Your task to perform on an android device: open chrome and create a bookmark for the current page Image 0: 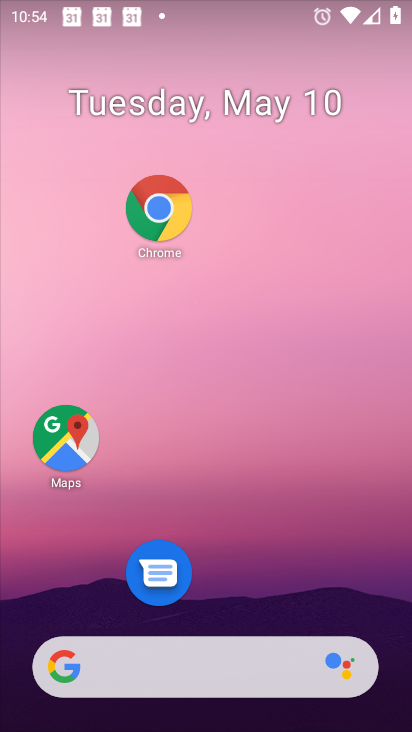
Step 0: drag from (290, 693) to (329, 155)
Your task to perform on an android device: open chrome and create a bookmark for the current page Image 1: 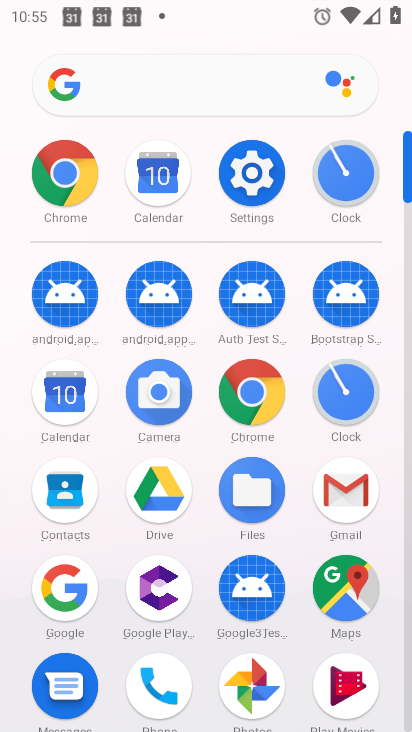
Step 1: click (75, 161)
Your task to perform on an android device: open chrome and create a bookmark for the current page Image 2: 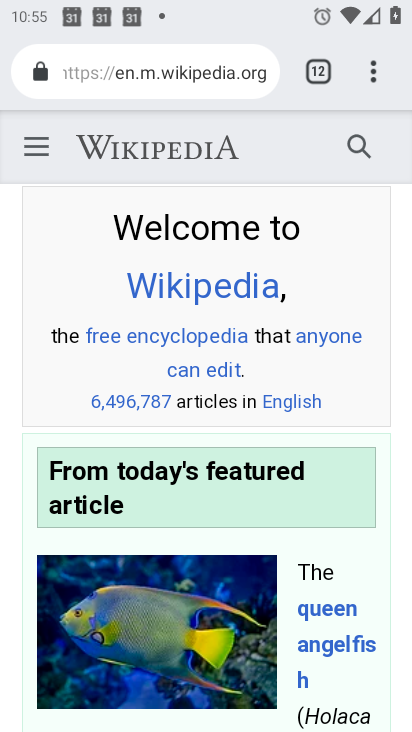
Step 2: click (369, 78)
Your task to perform on an android device: open chrome and create a bookmark for the current page Image 3: 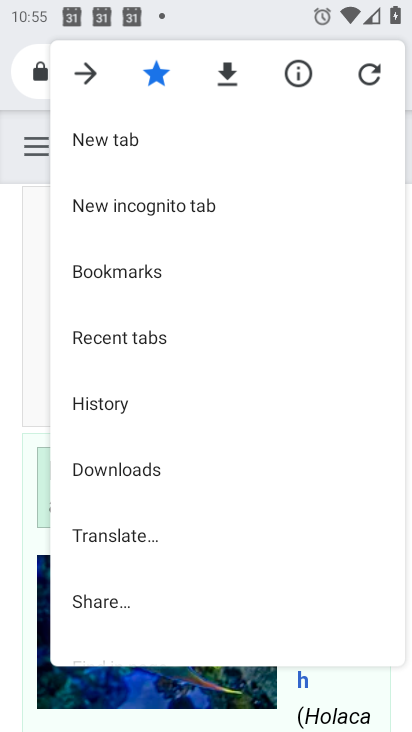
Step 3: click (142, 263)
Your task to perform on an android device: open chrome and create a bookmark for the current page Image 4: 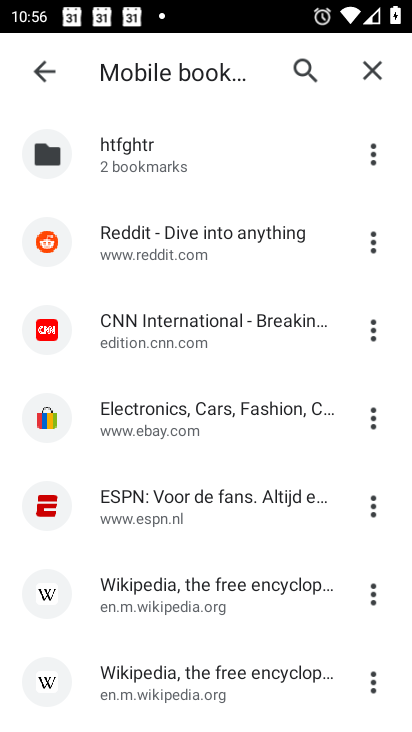
Step 4: task complete